Your task to perform on an android device: clear all cookies in the chrome app Image 0: 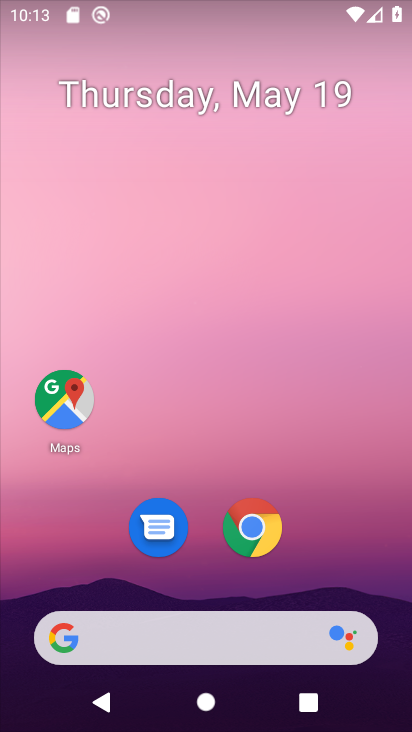
Step 0: click (261, 535)
Your task to perform on an android device: clear all cookies in the chrome app Image 1: 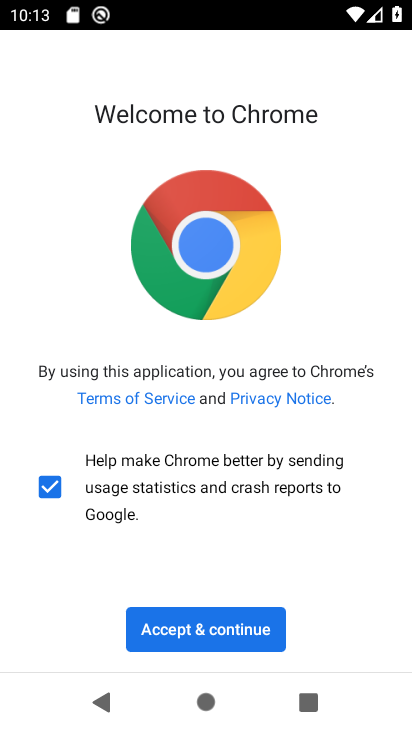
Step 1: click (226, 623)
Your task to perform on an android device: clear all cookies in the chrome app Image 2: 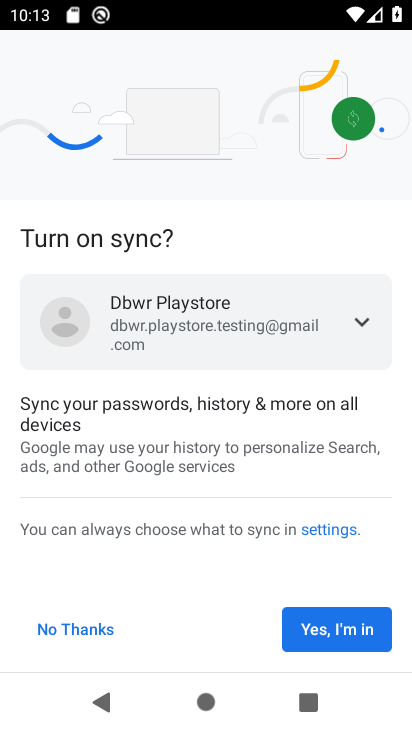
Step 2: click (337, 630)
Your task to perform on an android device: clear all cookies in the chrome app Image 3: 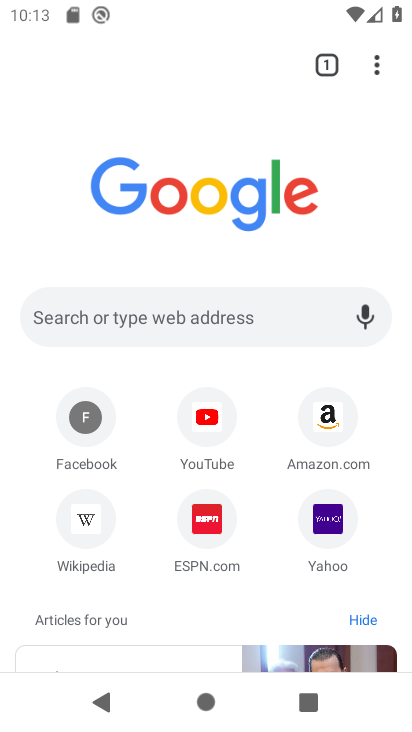
Step 3: click (377, 61)
Your task to perform on an android device: clear all cookies in the chrome app Image 4: 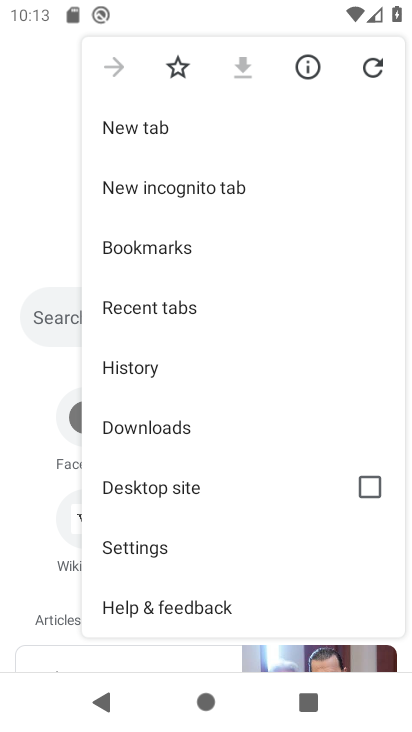
Step 4: click (171, 369)
Your task to perform on an android device: clear all cookies in the chrome app Image 5: 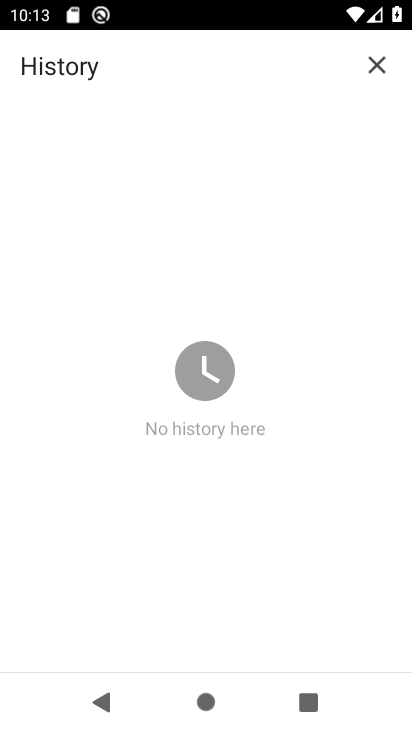
Step 5: task complete